Your task to perform on an android device: see creations saved in the google photos Image 0: 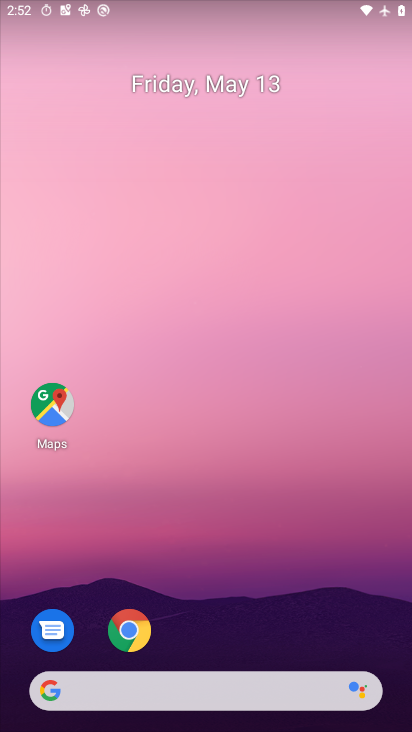
Step 0: drag from (303, 612) to (298, 300)
Your task to perform on an android device: see creations saved in the google photos Image 1: 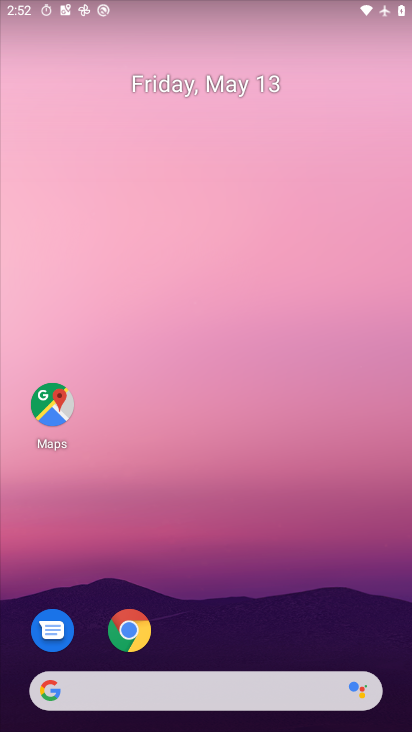
Step 1: drag from (237, 630) to (294, 231)
Your task to perform on an android device: see creations saved in the google photos Image 2: 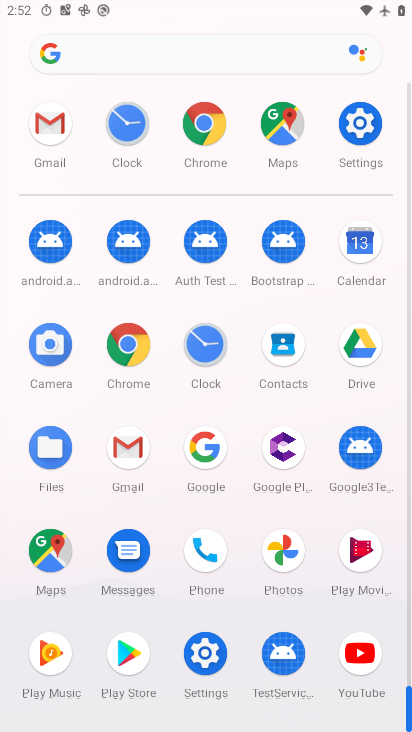
Step 2: drag from (245, 211) to (248, 69)
Your task to perform on an android device: see creations saved in the google photos Image 3: 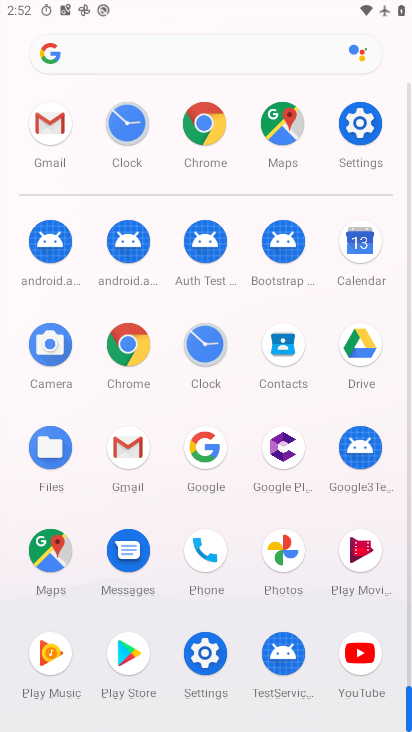
Step 3: click (280, 551)
Your task to perform on an android device: see creations saved in the google photos Image 4: 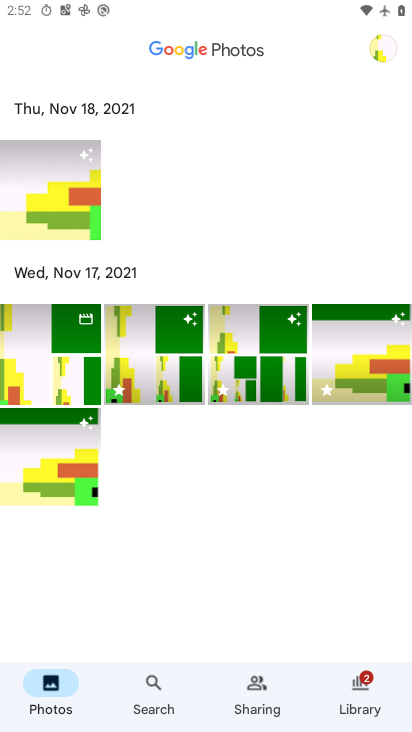
Step 4: click (147, 705)
Your task to perform on an android device: see creations saved in the google photos Image 5: 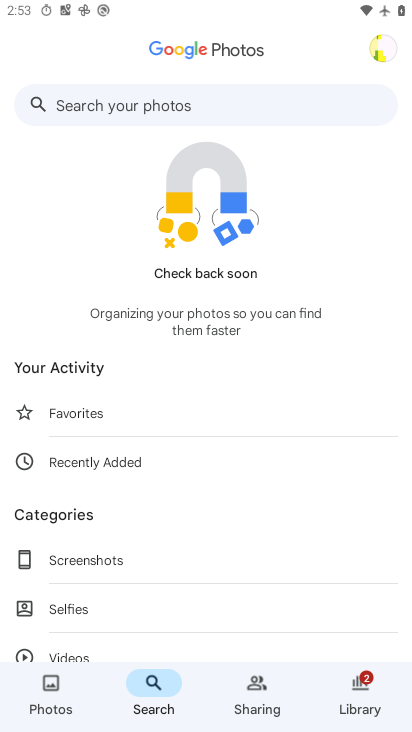
Step 5: click (205, 114)
Your task to perform on an android device: see creations saved in the google photos Image 6: 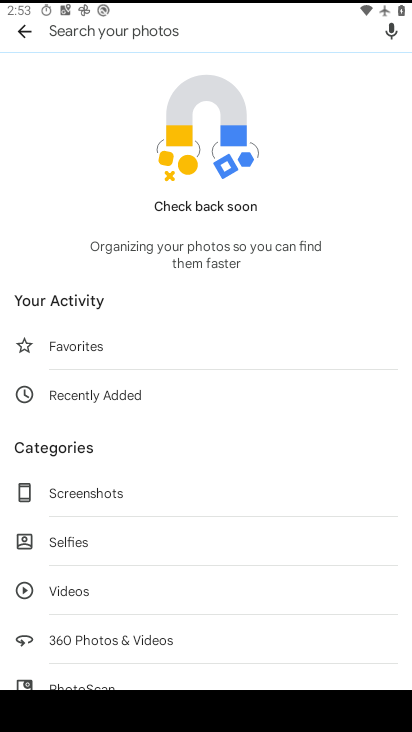
Step 6: drag from (163, 605) to (217, 306)
Your task to perform on an android device: see creations saved in the google photos Image 7: 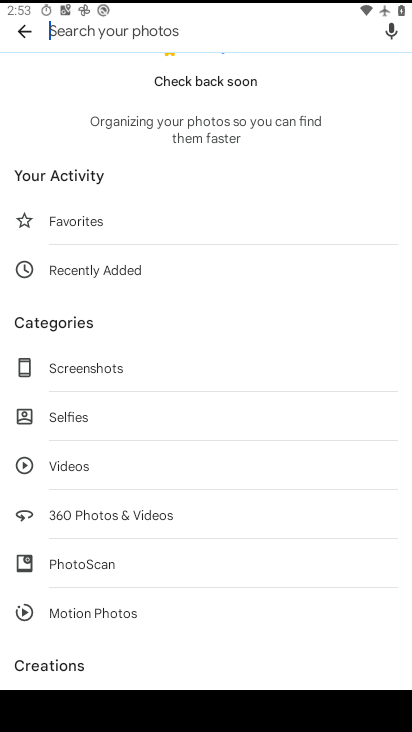
Step 7: drag from (141, 611) to (236, 399)
Your task to perform on an android device: see creations saved in the google photos Image 8: 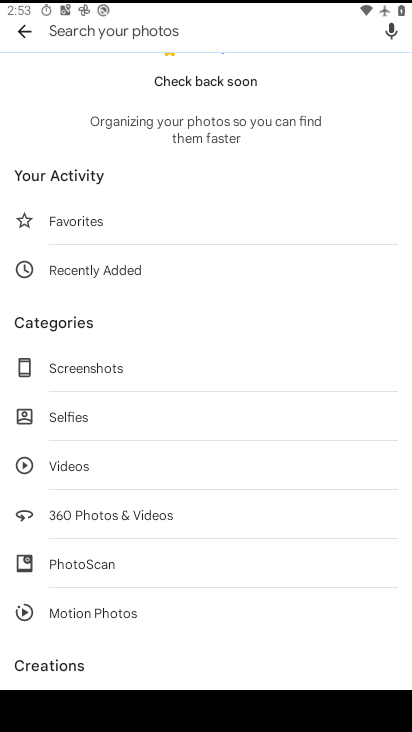
Step 8: drag from (132, 676) to (203, 417)
Your task to perform on an android device: see creations saved in the google photos Image 9: 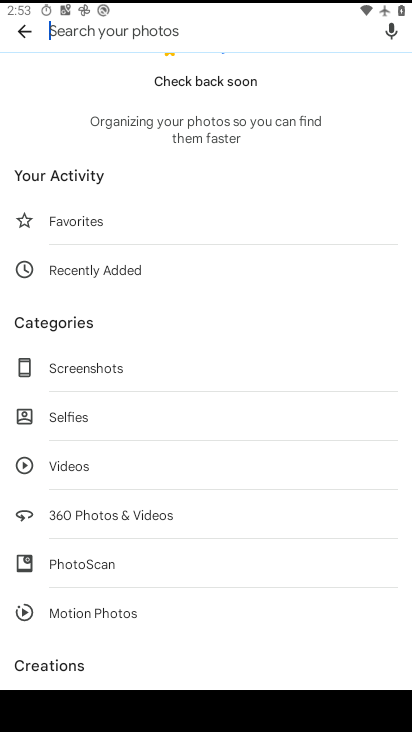
Step 9: click (105, 669)
Your task to perform on an android device: see creations saved in the google photos Image 10: 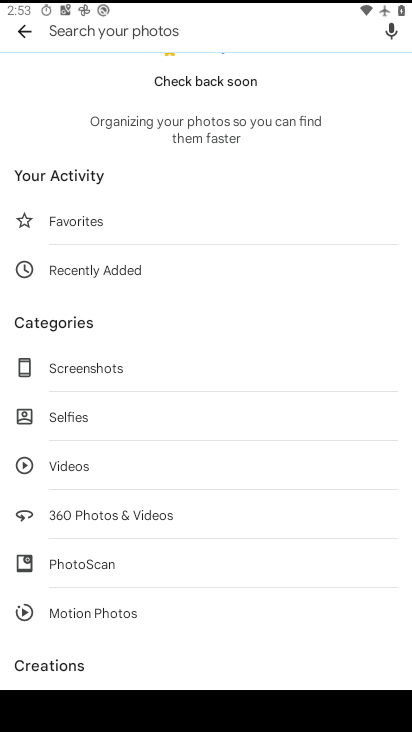
Step 10: click (89, 669)
Your task to perform on an android device: see creations saved in the google photos Image 11: 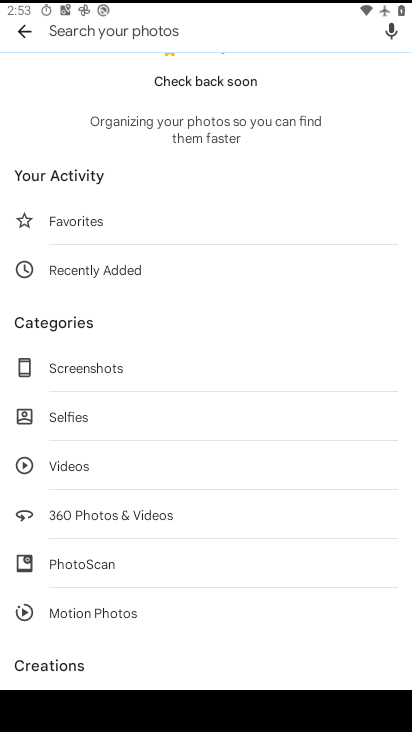
Step 11: drag from (109, 635) to (222, 239)
Your task to perform on an android device: see creations saved in the google photos Image 12: 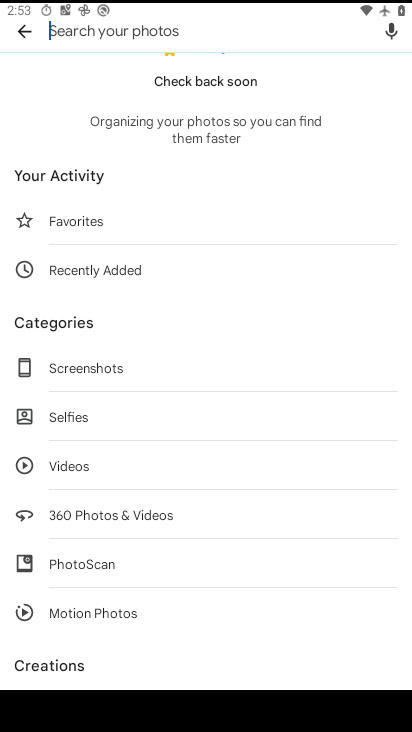
Step 12: click (82, 673)
Your task to perform on an android device: see creations saved in the google photos Image 13: 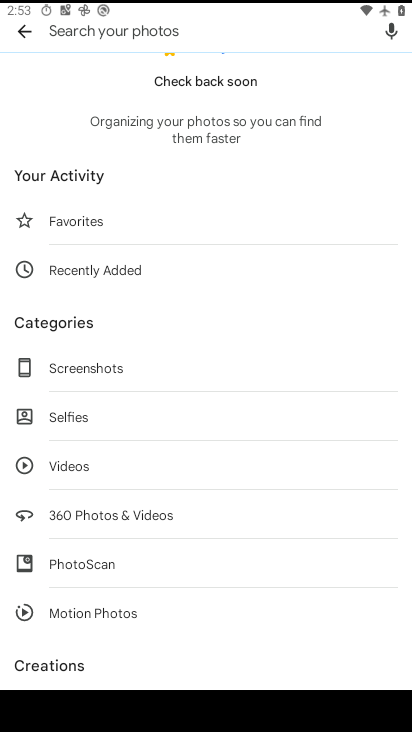
Step 13: click (82, 666)
Your task to perform on an android device: see creations saved in the google photos Image 14: 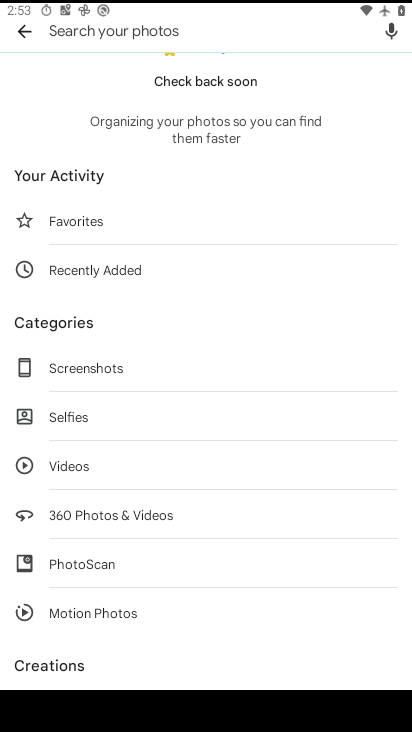
Step 14: click (82, 666)
Your task to perform on an android device: see creations saved in the google photos Image 15: 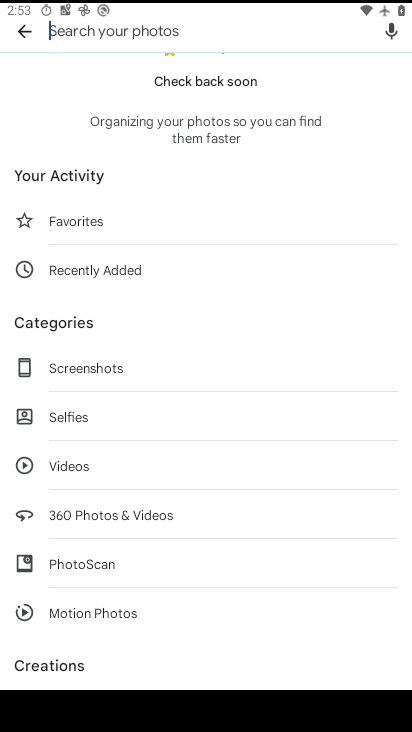
Step 15: task complete